Your task to perform on an android device: Check the settings for the Lyft app Image 0: 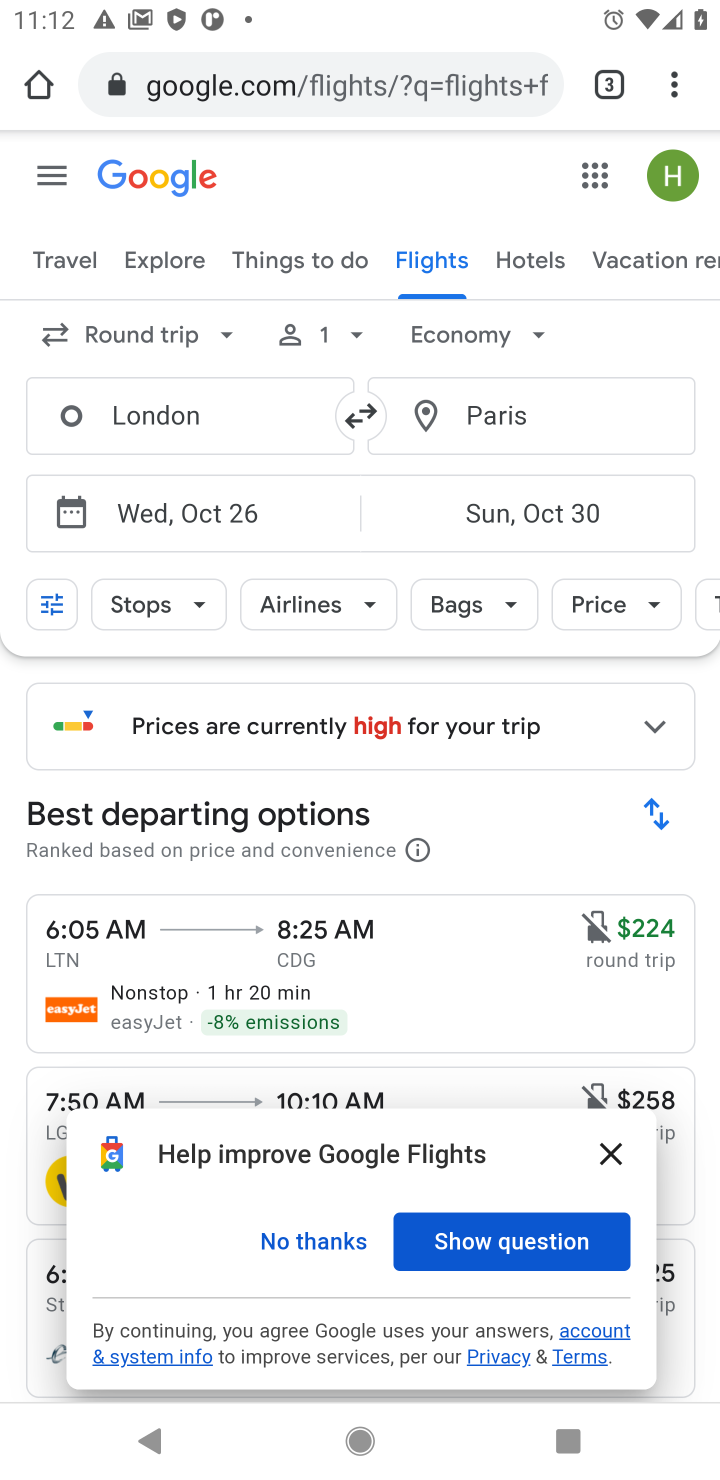
Step 0: press home button
Your task to perform on an android device: Check the settings for the Lyft app Image 1: 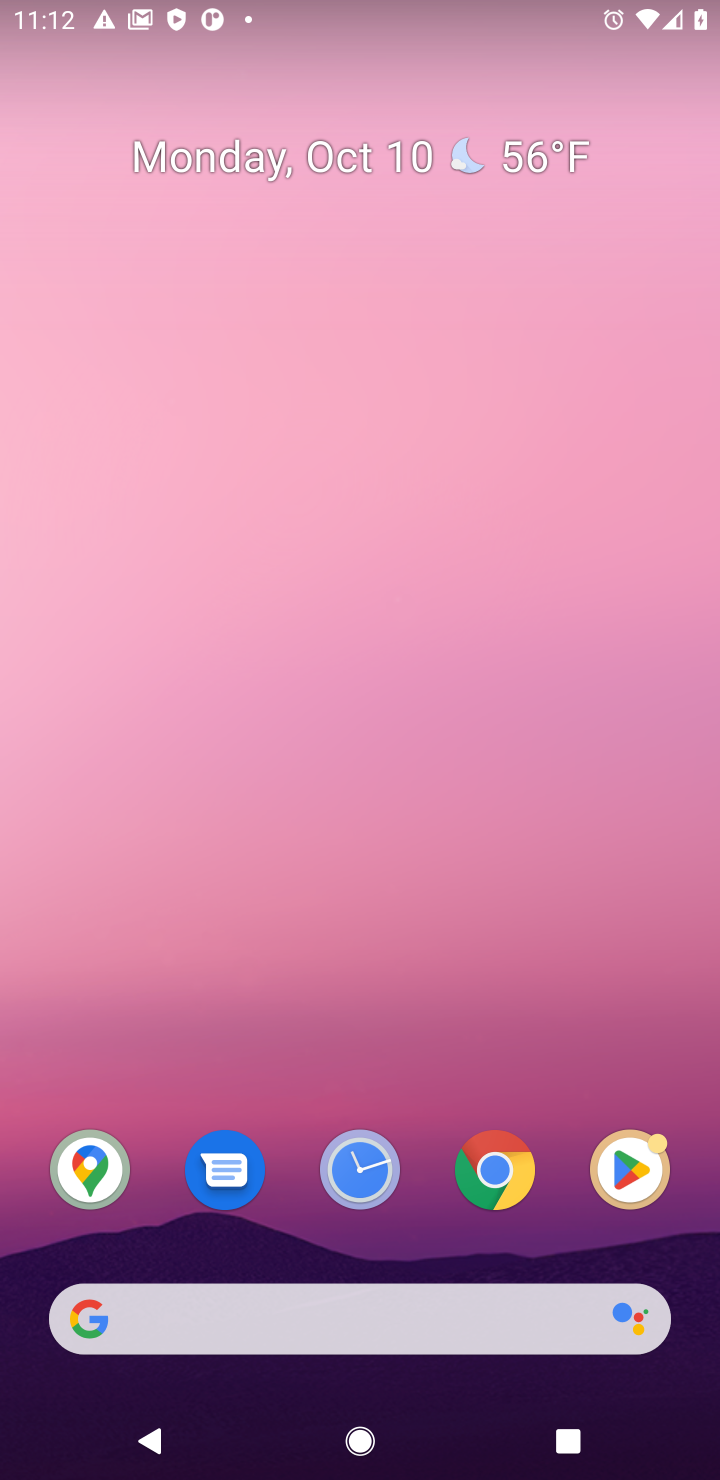
Step 1: drag from (400, 1198) to (411, 828)
Your task to perform on an android device: Check the settings for the Lyft app Image 2: 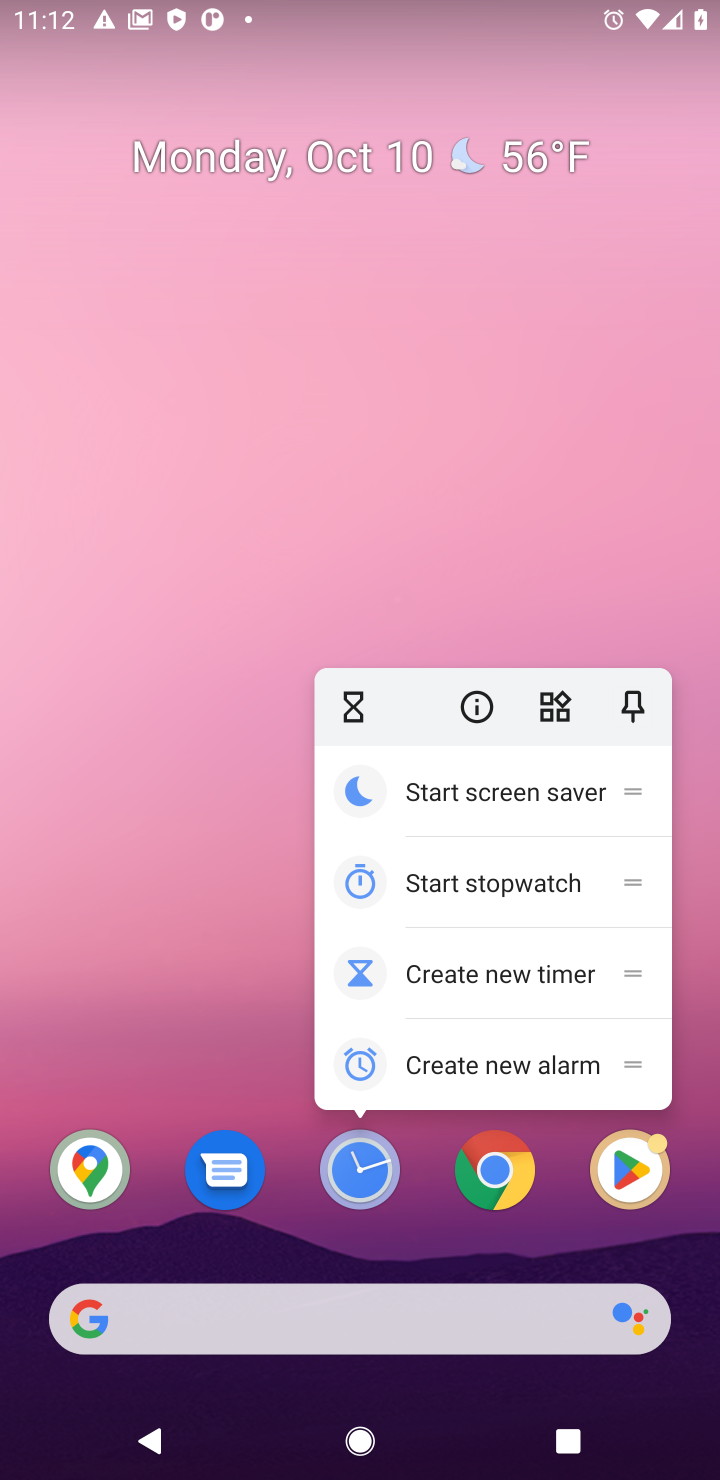
Step 2: click (180, 964)
Your task to perform on an android device: Check the settings for the Lyft app Image 3: 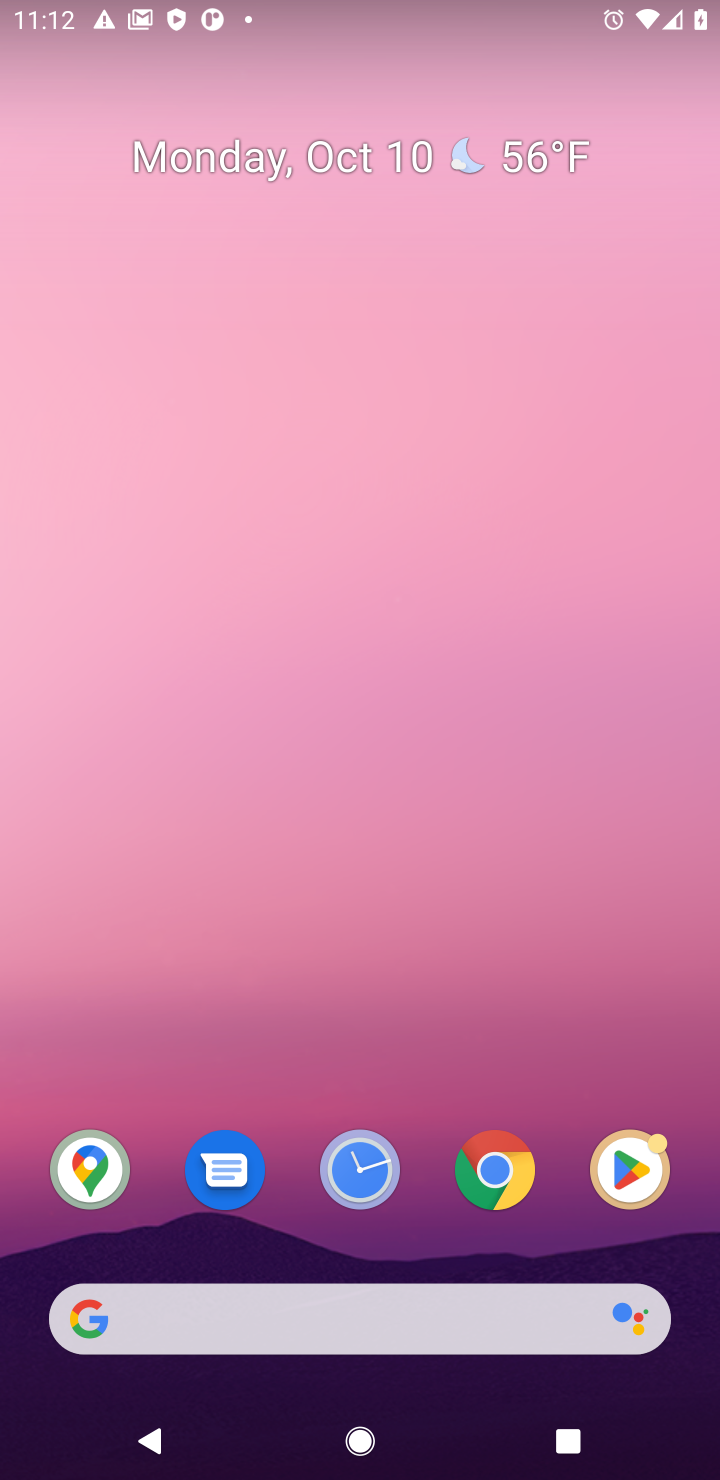
Step 3: click (321, 387)
Your task to perform on an android device: Check the settings for the Lyft app Image 4: 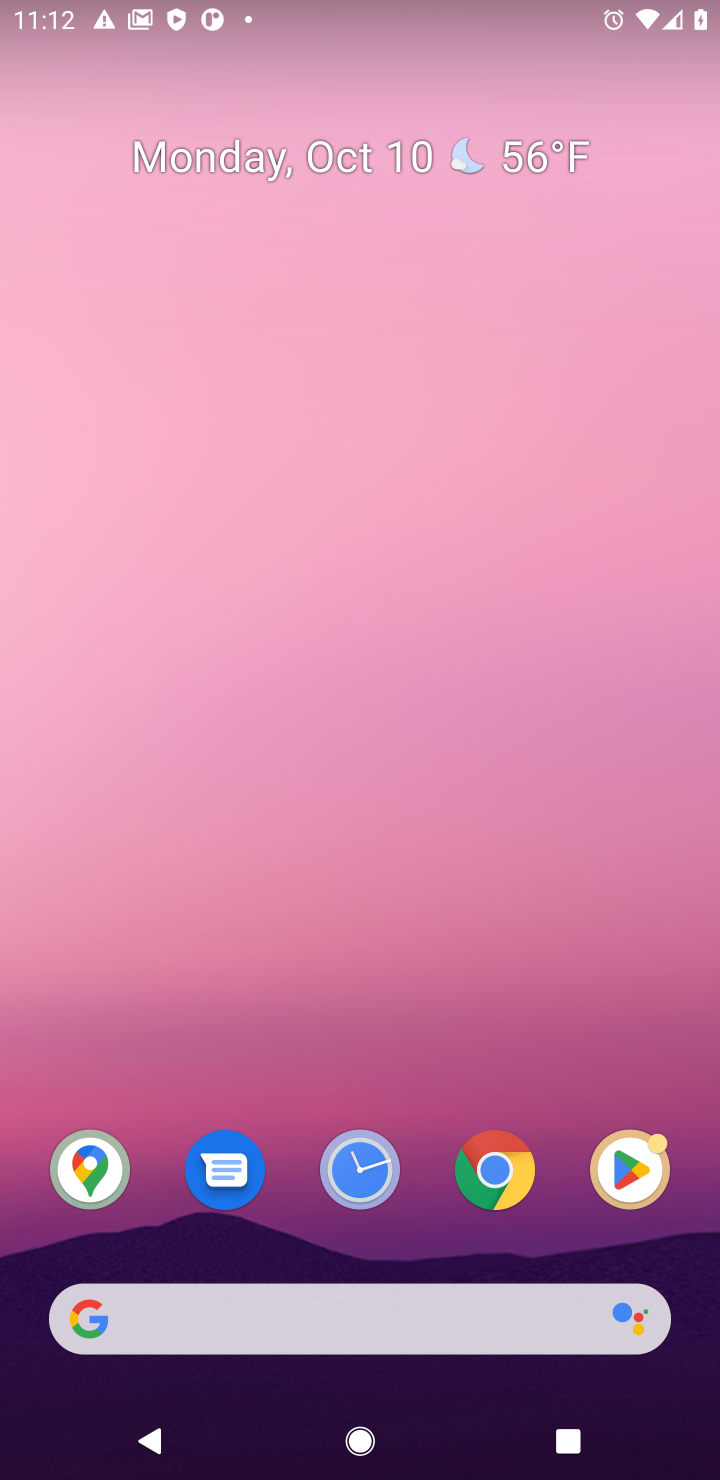
Step 4: task complete